Your task to perform on an android device: Go to ESPN.com Image 0: 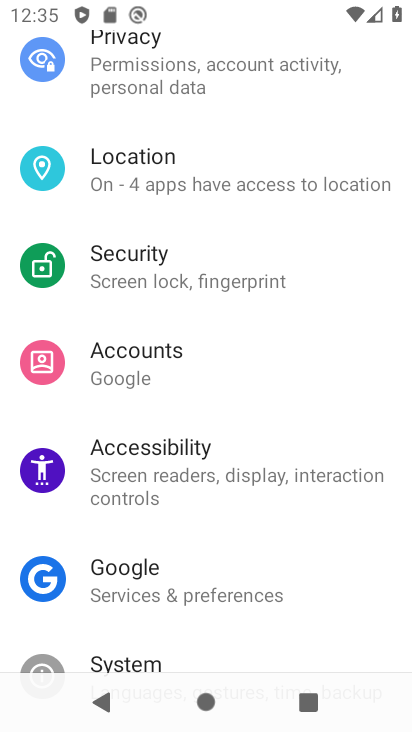
Step 0: press home button
Your task to perform on an android device: Go to ESPN.com Image 1: 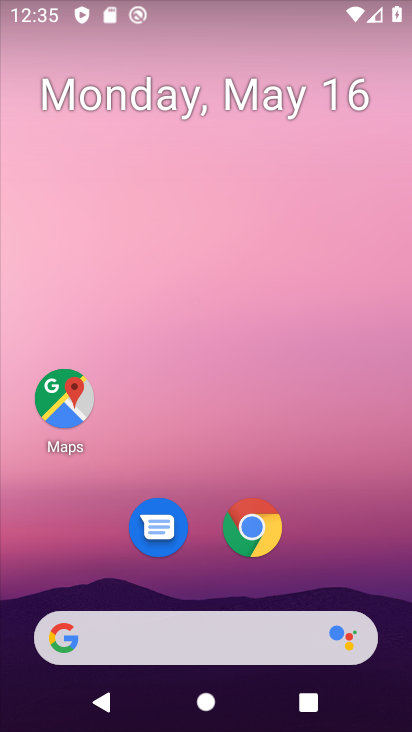
Step 1: click (254, 524)
Your task to perform on an android device: Go to ESPN.com Image 2: 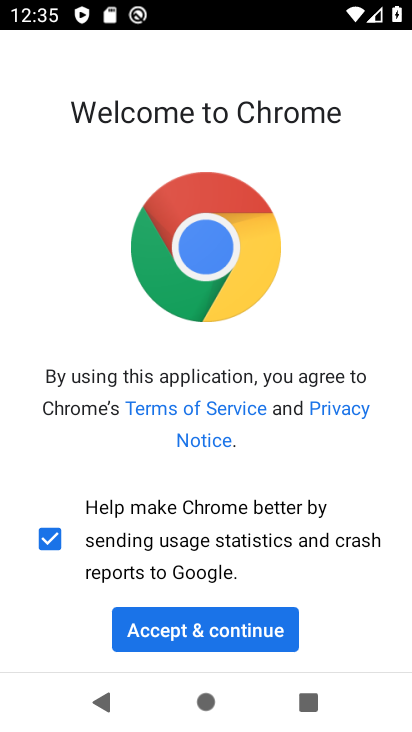
Step 2: click (258, 624)
Your task to perform on an android device: Go to ESPN.com Image 3: 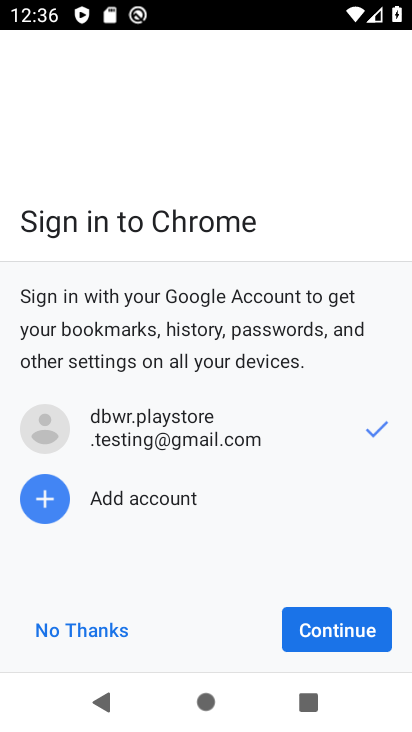
Step 3: click (374, 618)
Your task to perform on an android device: Go to ESPN.com Image 4: 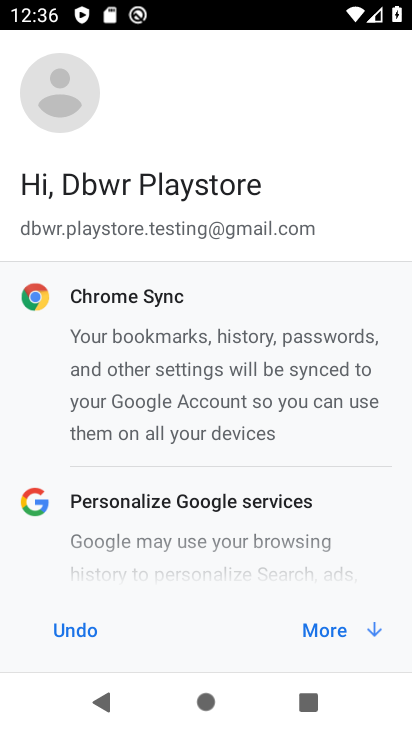
Step 4: click (347, 631)
Your task to perform on an android device: Go to ESPN.com Image 5: 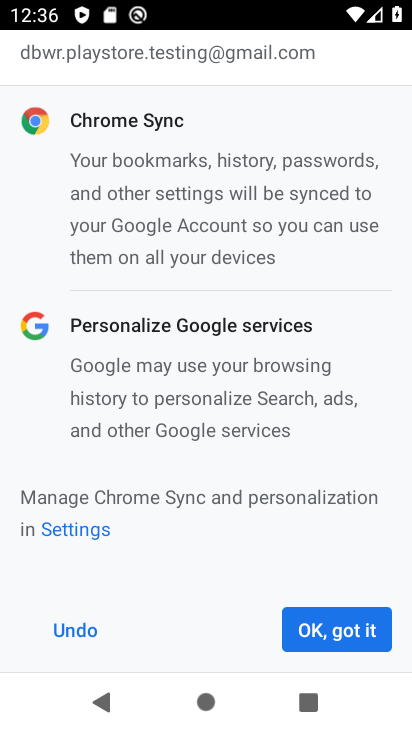
Step 5: click (354, 640)
Your task to perform on an android device: Go to ESPN.com Image 6: 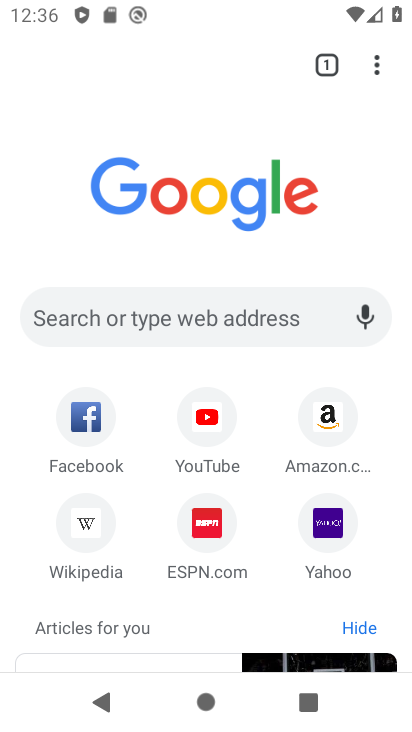
Step 6: click (94, 306)
Your task to perform on an android device: Go to ESPN.com Image 7: 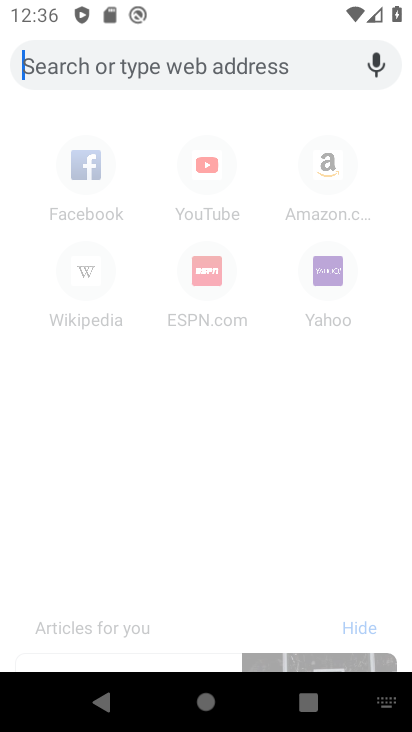
Step 7: type "ESPN.com"
Your task to perform on an android device: Go to ESPN.com Image 8: 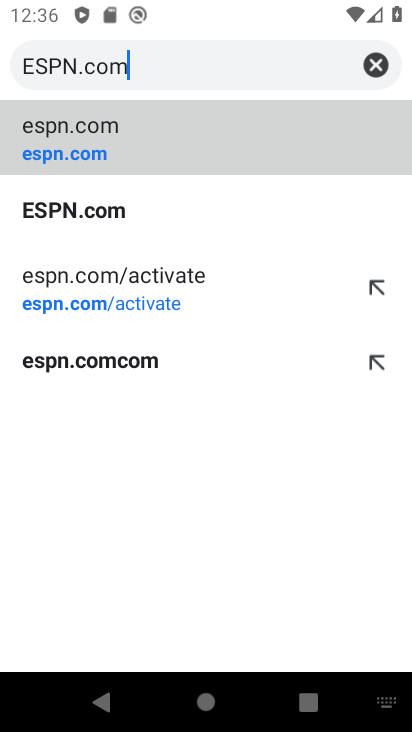
Step 8: click (80, 137)
Your task to perform on an android device: Go to ESPN.com Image 9: 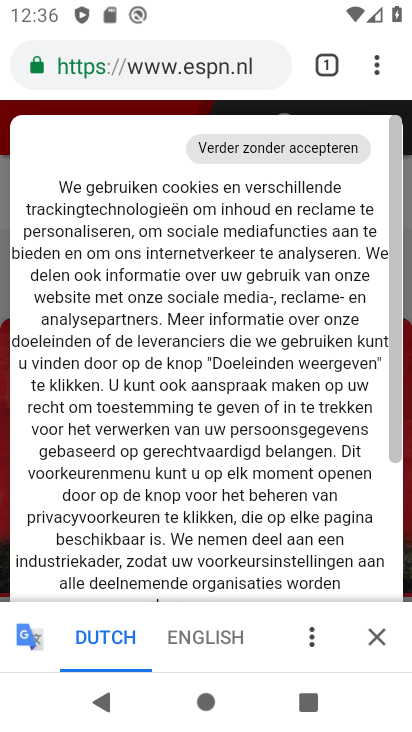
Step 9: task complete